Your task to perform on an android device: see sites visited before in the chrome app Image 0: 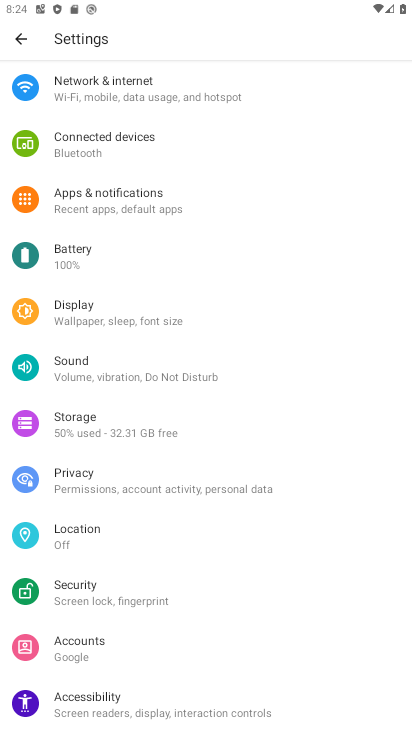
Step 0: press home button
Your task to perform on an android device: see sites visited before in the chrome app Image 1: 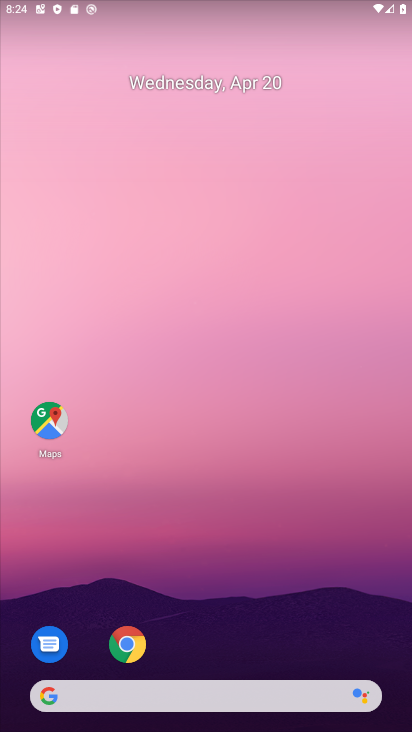
Step 1: drag from (344, 512) to (268, 151)
Your task to perform on an android device: see sites visited before in the chrome app Image 2: 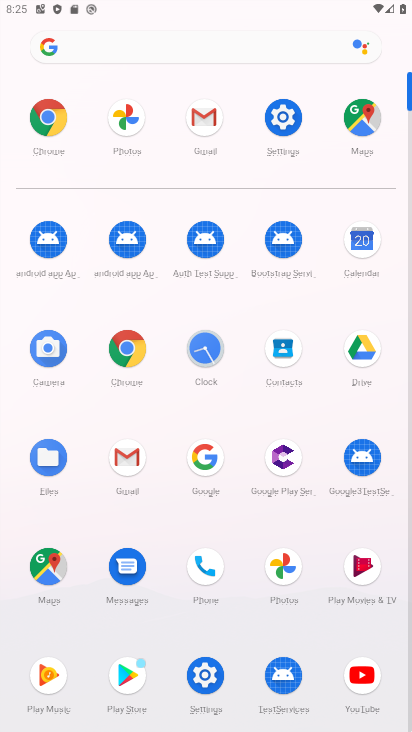
Step 2: click (33, 121)
Your task to perform on an android device: see sites visited before in the chrome app Image 3: 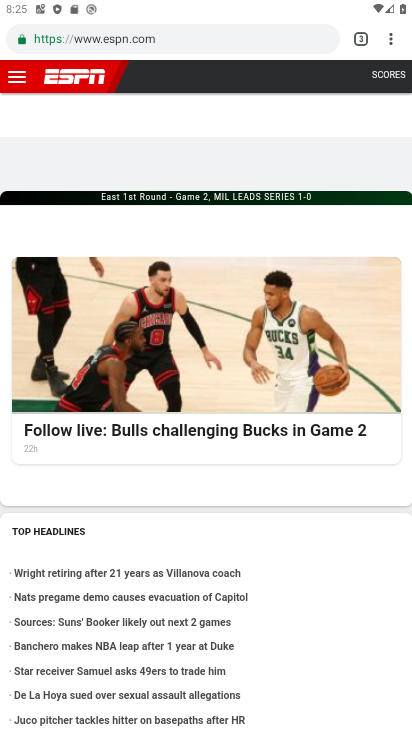
Step 3: click (359, 40)
Your task to perform on an android device: see sites visited before in the chrome app Image 4: 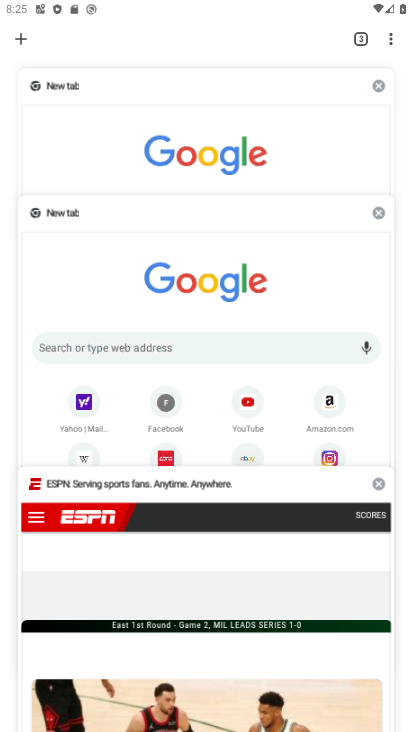
Step 4: click (374, 485)
Your task to perform on an android device: see sites visited before in the chrome app Image 5: 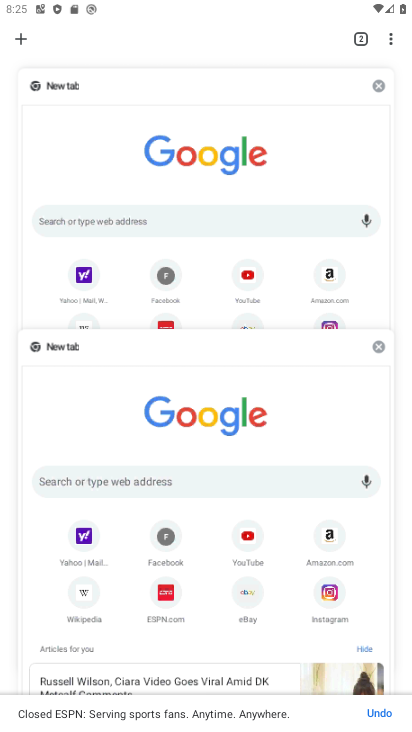
Step 5: click (376, 345)
Your task to perform on an android device: see sites visited before in the chrome app Image 6: 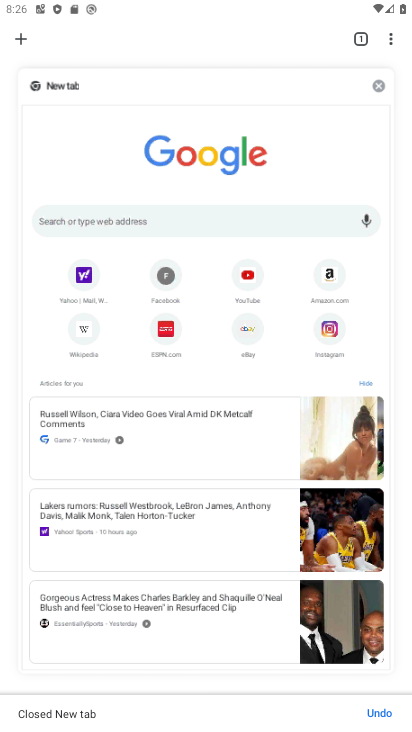
Step 6: click (298, 283)
Your task to perform on an android device: see sites visited before in the chrome app Image 7: 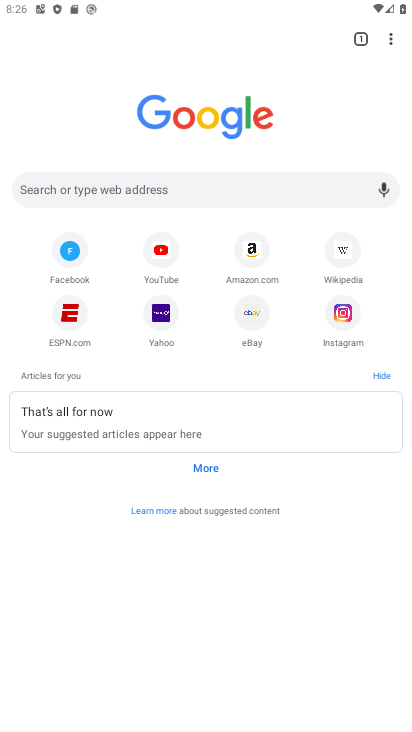
Step 7: click (391, 32)
Your task to perform on an android device: see sites visited before in the chrome app Image 8: 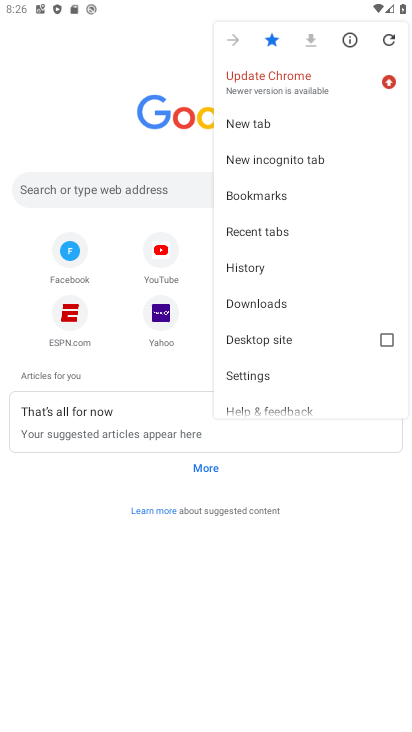
Step 8: click (267, 266)
Your task to perform on an android device: see sites visited before in the chrome app Image 9: 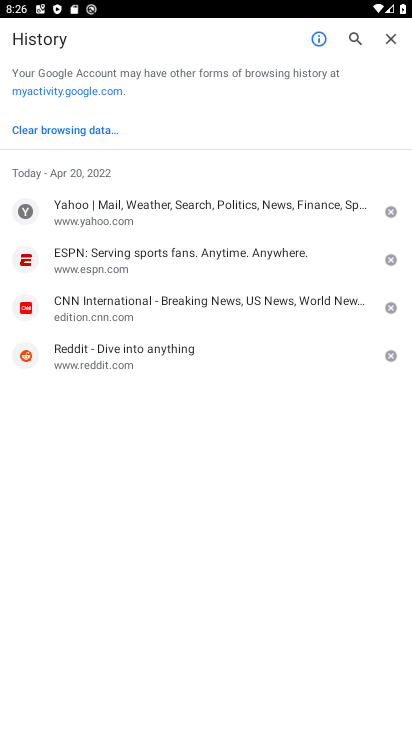
Step 9: click (158, 212)
Your task to perform on an android device: see sites visited before in the chrome app Image 10: 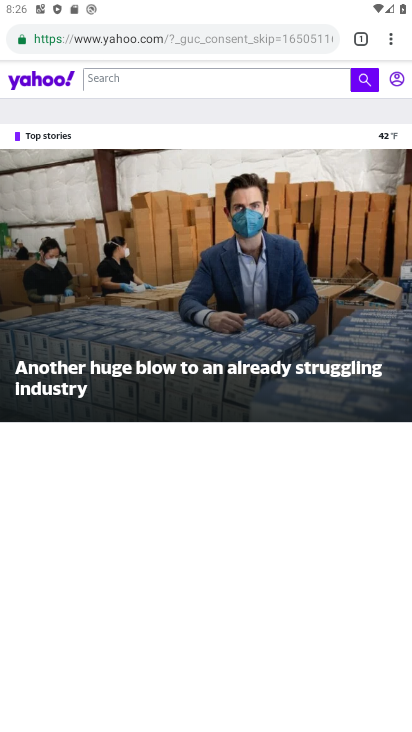
Step 10: task complete